Your task to perform on an android device: turn pop-ups off in chrome Image 0: 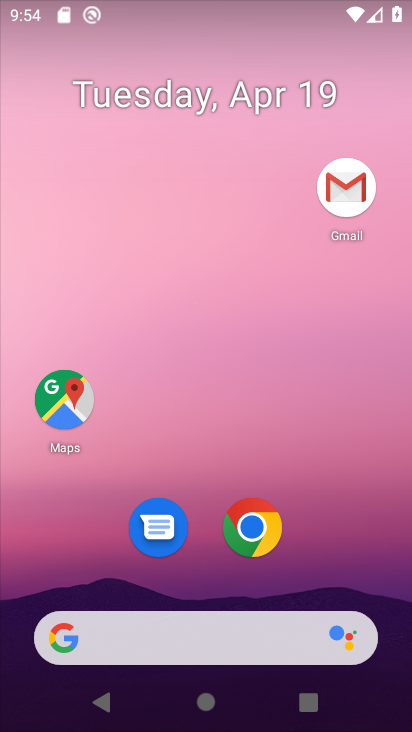
Step 0: click (266, 535)
Your task to perform on an android device: turn pop-ups off in chrome Image 1: 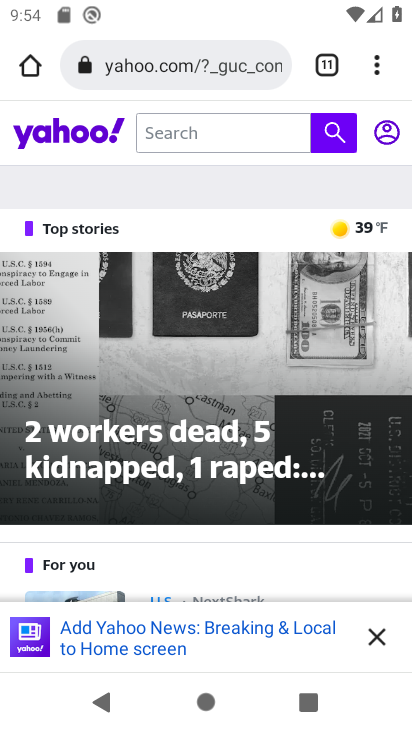
Step 1: drag from (379, 77) to (264, 548)
Your task to perform on an android device: turn pop-ups off in chrome Image 2: 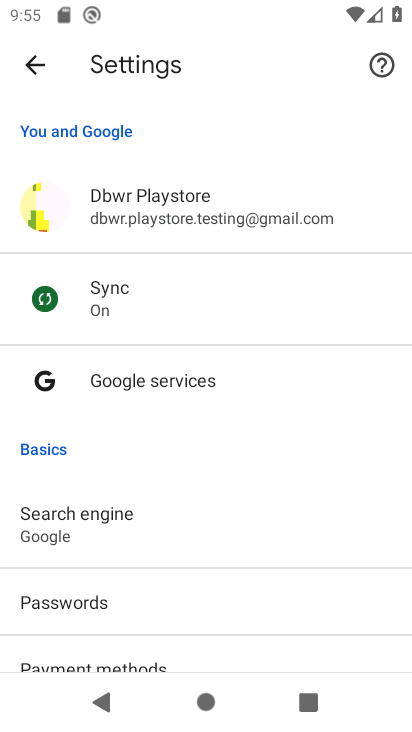
Step 2: drag from (319, 625) to (365, 197)
Your task to perform on an android device: turn pop-ups off in chrome Image 3: 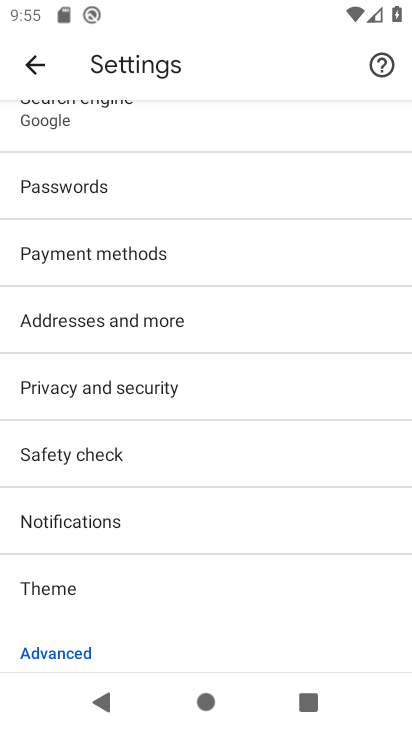
Step 3: drag from (316, 588) to (335, 221)
Your task to perform on an android device: turn pop-ups off in chrome Image 4: 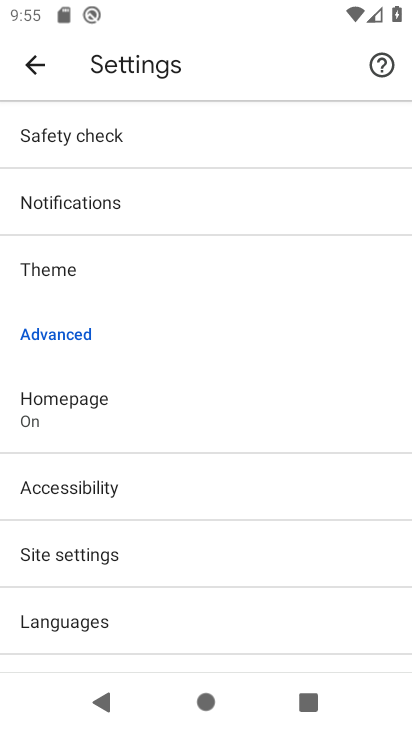
Step 4: drag from (333, 609) to (358, 274)
Your task to perform on an android device: turn pop-ups off in chrome Image 5: 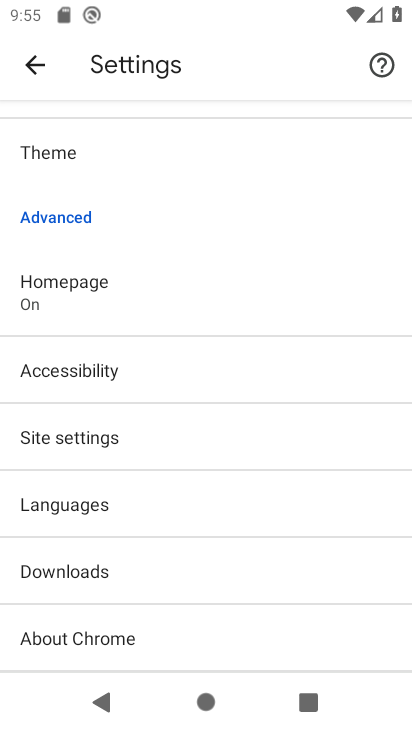
Step 5: click (112, 443)
Your task to perform on an android device: turn pop-ups off in chrome Image 6: 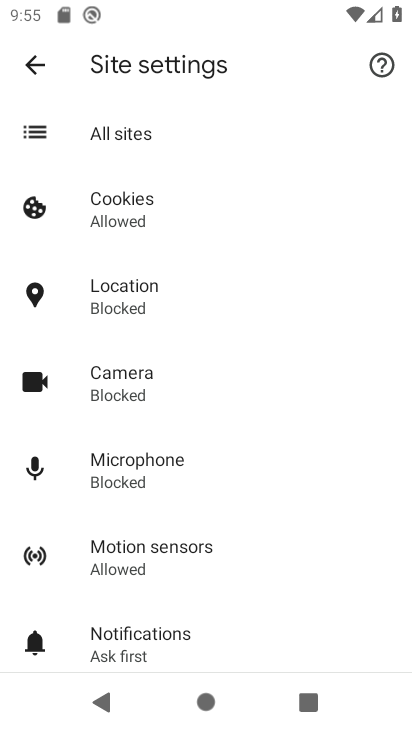
Step 6: drag from (267, 586) to (267, 257)
Your task to perform on an android device: turn pop-ups off in chrome Image 7: 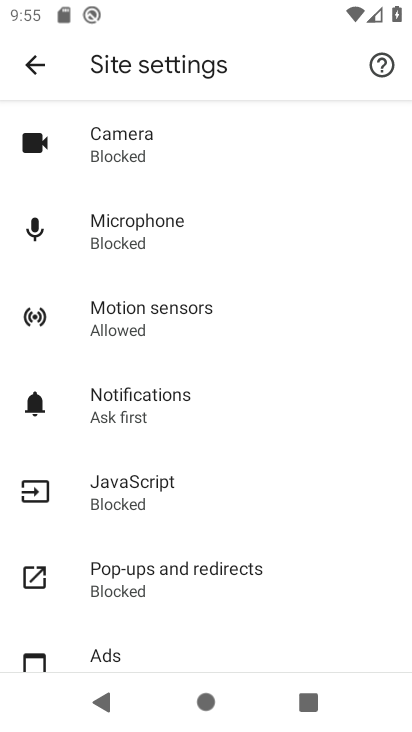
Step 7: click (218, 573)
Your task to perform on an android device: turn pop-ups off in chrome Image 8: 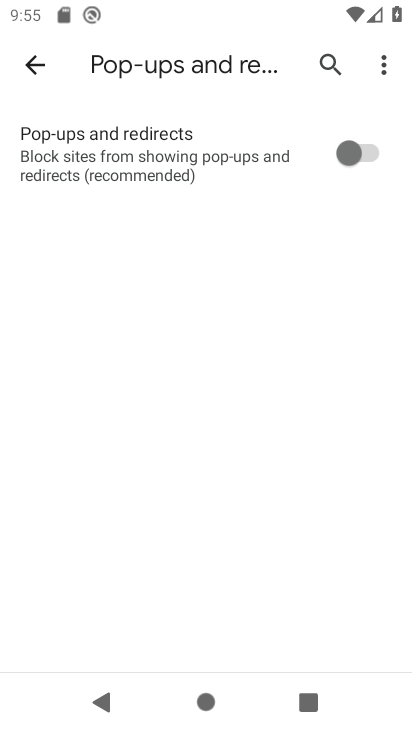
Step 8: task complete